Your task to perform on an android device: Go to Yahoo.com Image 0: 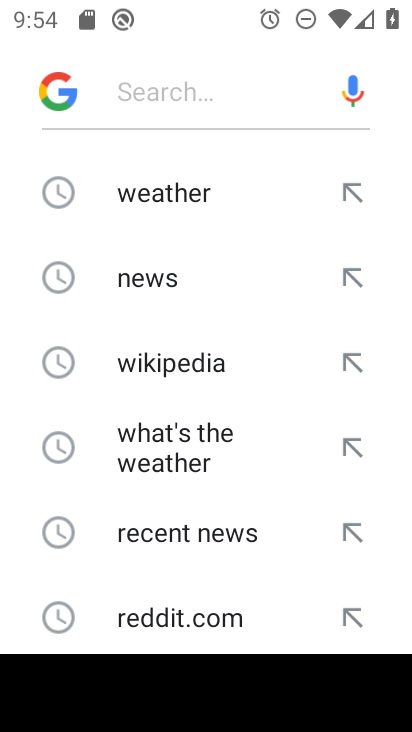
Step 0: press home button
Your task to perform on an android device: Go to Yahoo.com Image 1: 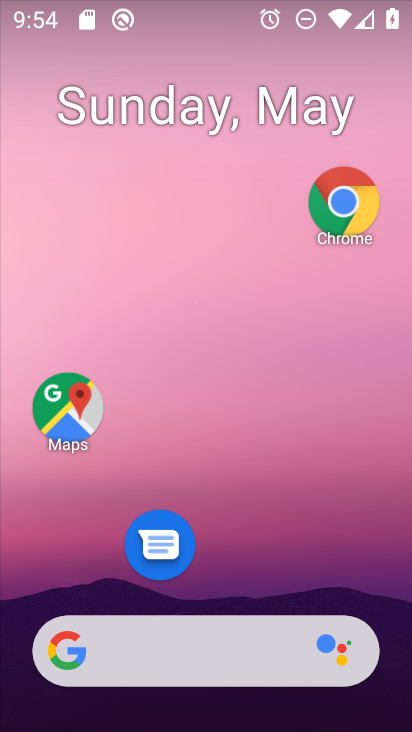
Step 1: click (343, 199)
Your task to perform on an android device: Go to Yahoo.com Image 2: 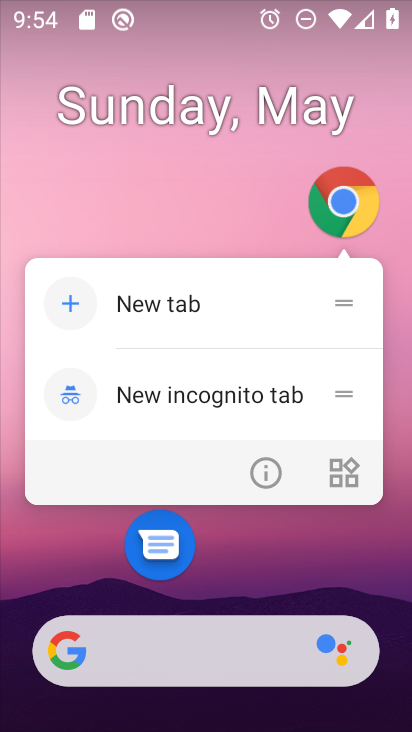
Step 2: click (337, 198)
Your task to perform on an android device: Go to Yahoo.com Image 3: 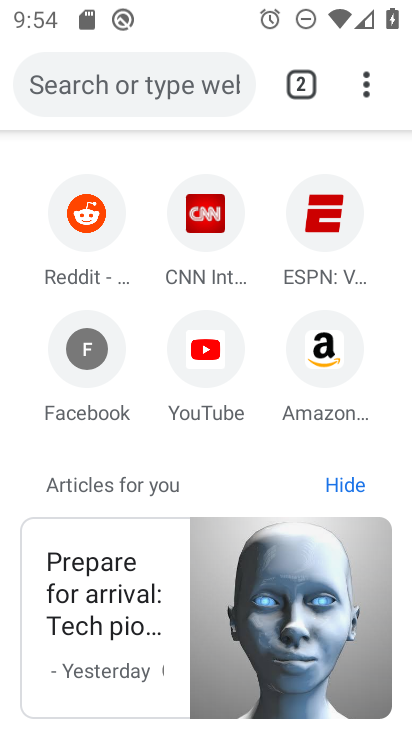
Step 3: click (155, 97)
Your task to perform on an android device: Go to Yahoo.com Image 4: 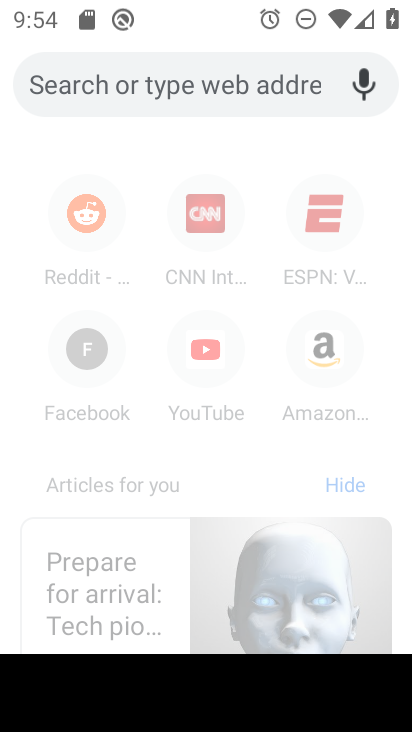
Step 4: type "yahoo.com"
Your task to perform on an android device: Go to Yahoo.com Image 5: 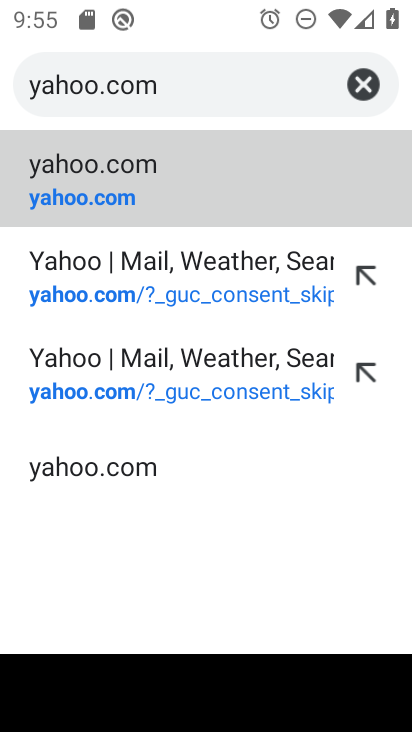
Step 5: click (191, 173)
Your task to perform on an android device: Go to Yahoo.com Image 6: 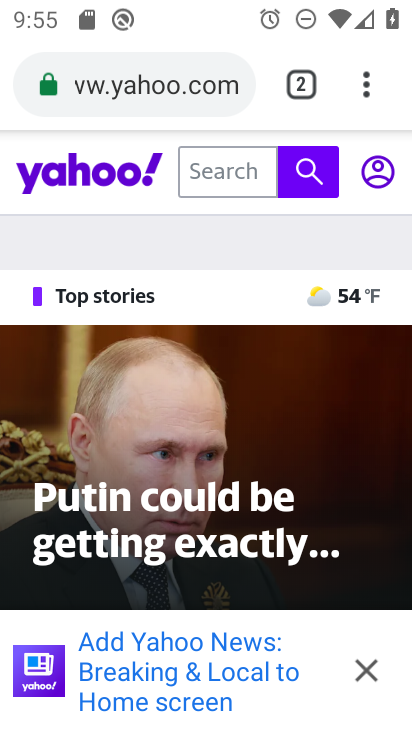
Step 6: task complete